Your task to perform on an android device: See recent photos Image 0: 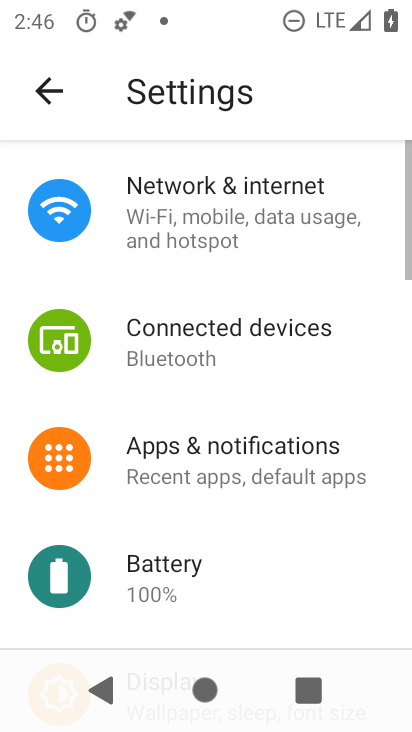
Step 0: press home button
Your task to perform on an android device: See recent photos Image 1: 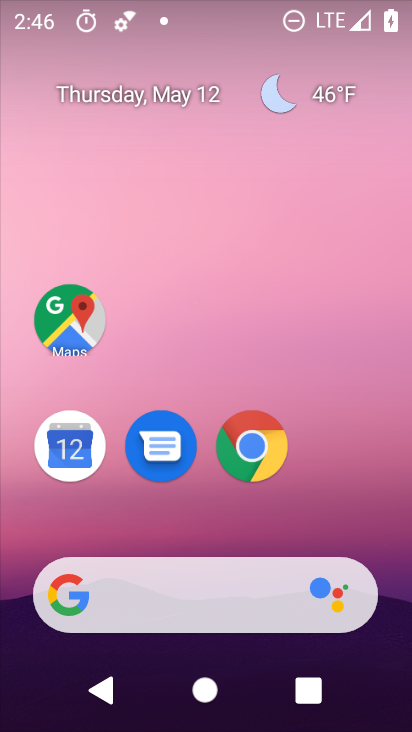
Step 1: drag from (220, 540) to (214, 174)
Your task to perform on an android device: See recent photos Image 2: 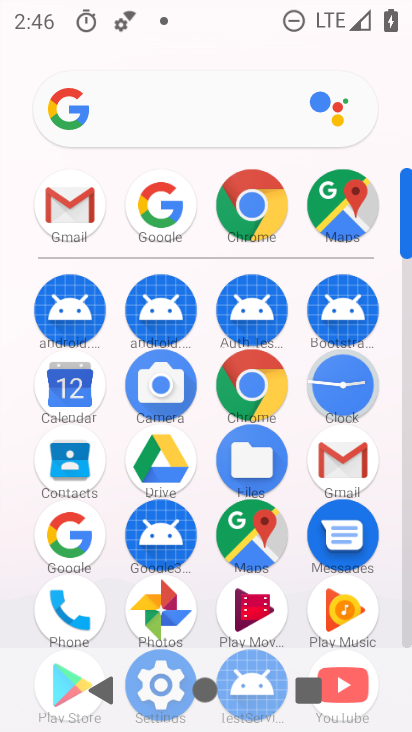
Step 2: click (77, 549)
Your task to perform on an android device: See recent photos Image 3: 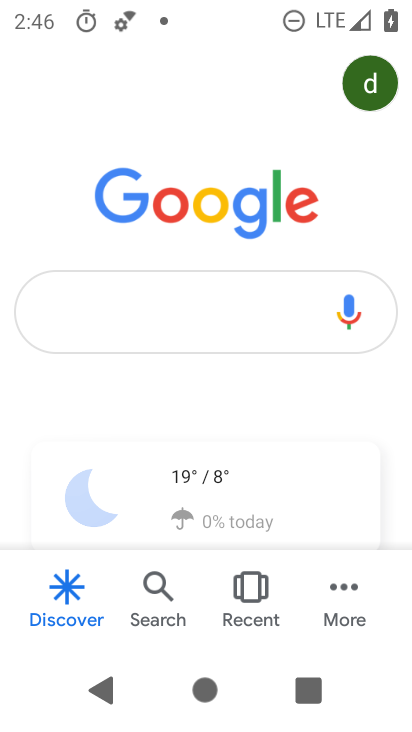
Step 3: click (168, 322)
Your task to perform on an android device: See recent photos Image 4: 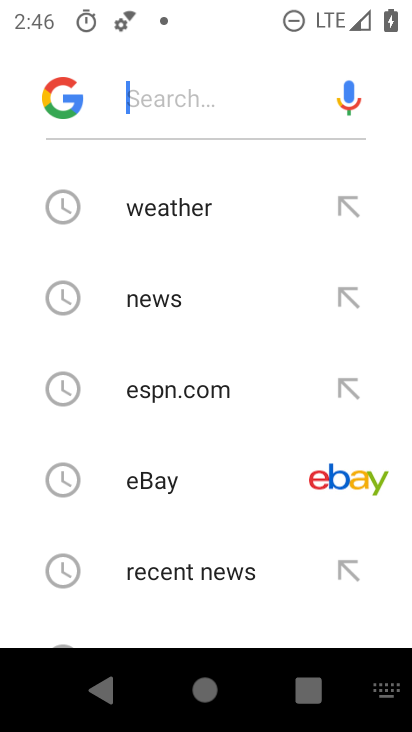
Step 4: click (152, 307)
Your task to perform on an android device: See recent photos Image 5: 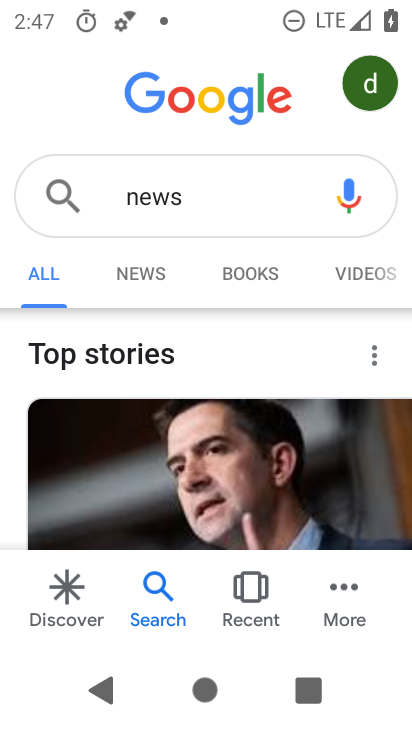
Step 5: click (162, 279)
Your task to perform on an android device: See recent photos Image 6: 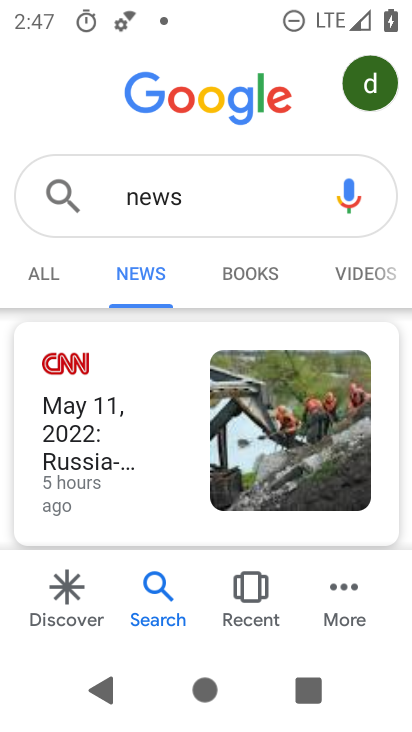
Step 6: task complete